Your task to perform on an android device: turn on sleep mode Image 0: 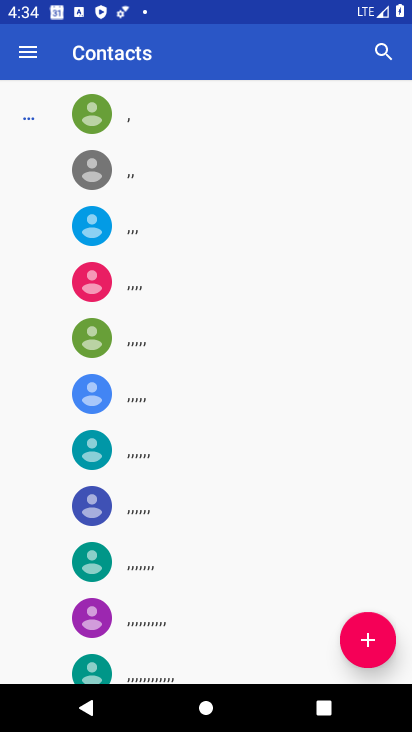
Step 0: press home button
Your task to perform on an android device: turn on sleep mode Image 1: 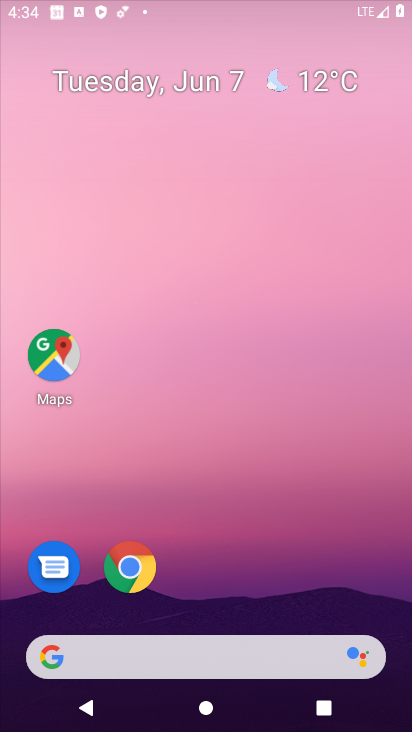
Step 1: drag from (299, 624) to (331, 65)
Your task to perform on an android device: turn on sleep mode Image 2: 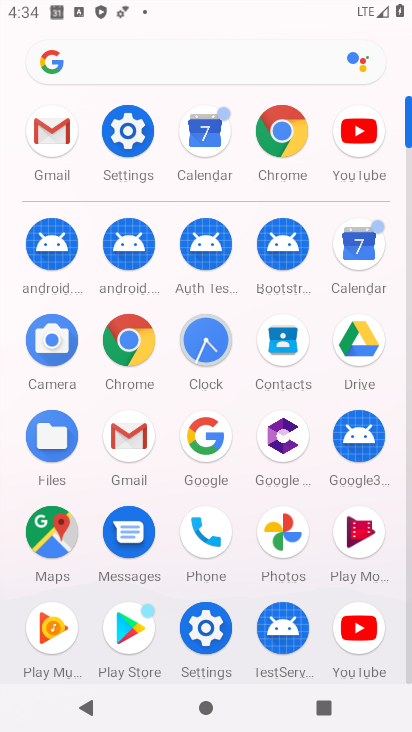
Step 2: click (113, 147)
Your task to perform on an android device: turn on sleep mode Image 3: 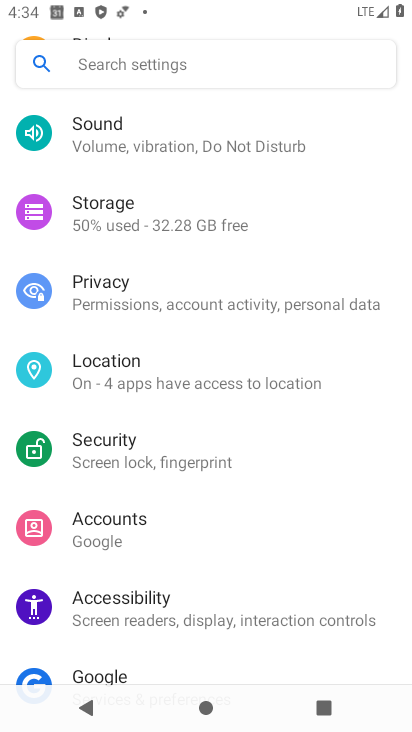
Step 3: drag from (213, 209) to (229, 573)
Your task to perform on an android device: turn on sleep mode Image 4: 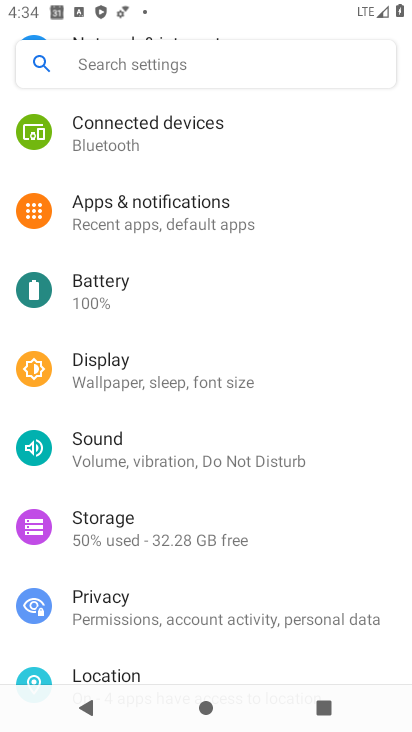
Step 4: click (194, 382)
Your task to perform on an android device: turn on sleep mode Image 5: 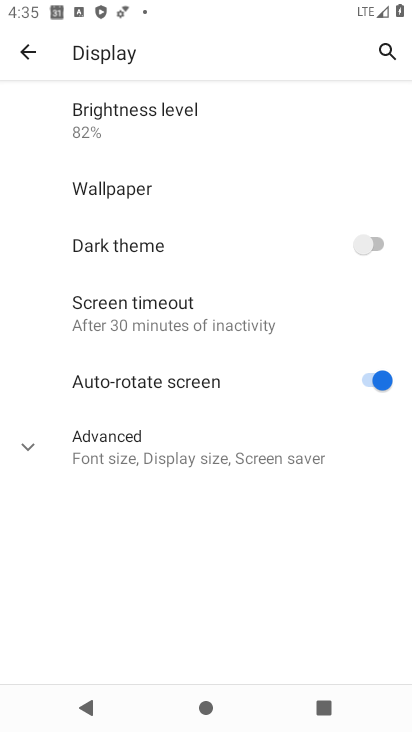
Step 5: task complete